Your task to perform on an android device: turn off smart reply in the gmail app Image 0: 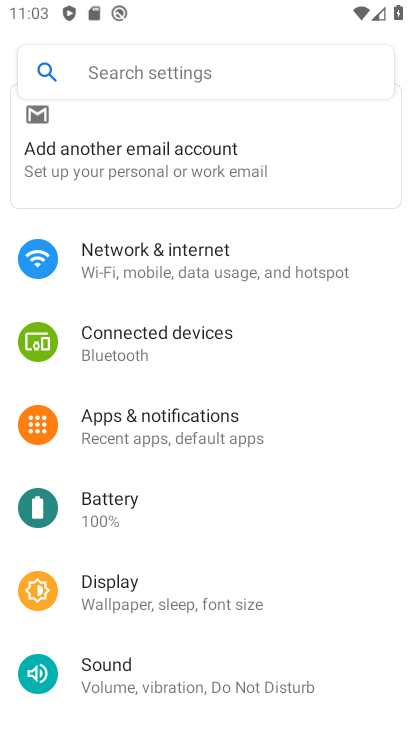
Step 0: press home button
Your task to perform on an android device: turn off smart reply in the gmail app Image 1: 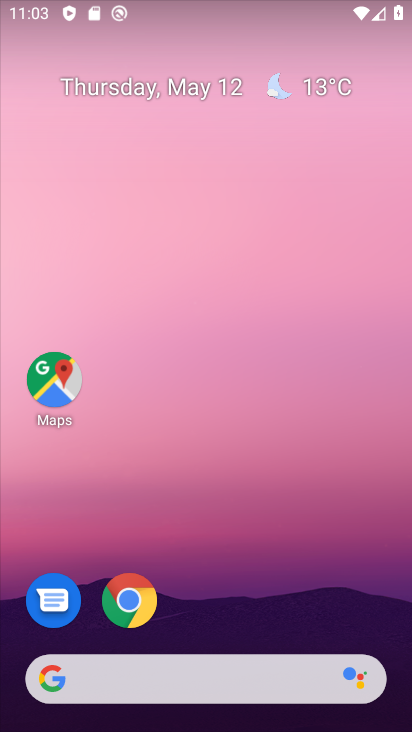
Step 1: drag from (385, 619) to (326, 82)
Your task to perform on an android device: turn off smart reply in the gmail app Image 2: 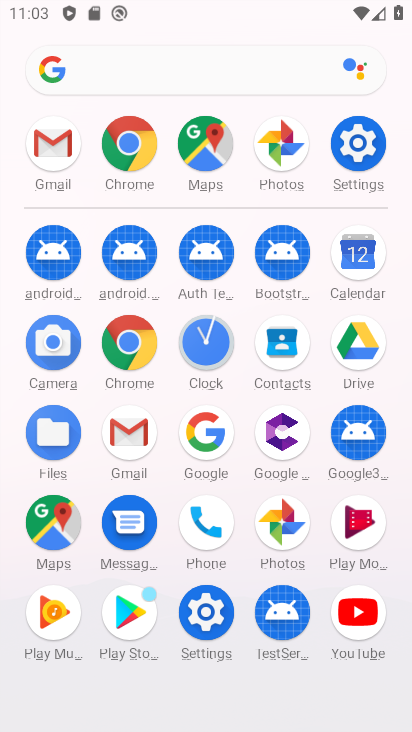
Step 2: click (127, 431)
Your task to perform on an android device: turn off smart reply in the gmail app Image 3: 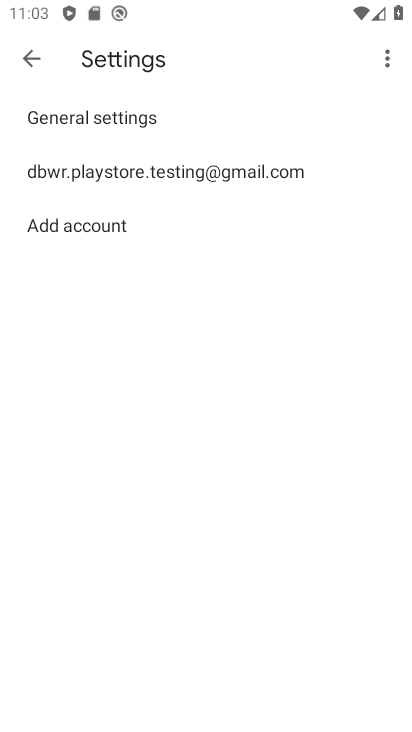
Step 3: click (138, 173)
Your task to perform on an android device: turn off smart reply in the gmail app Image 4: 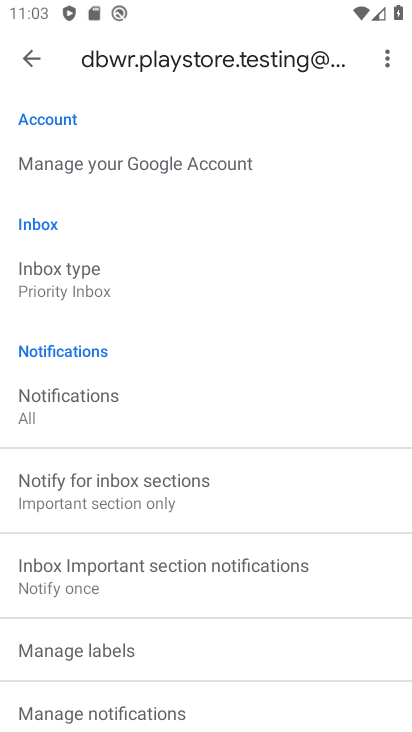
Step 4: drag from (320, 594) to (281, 184)
Your task to perform on an android device: turn off smart reply in the gmail app Image 5: 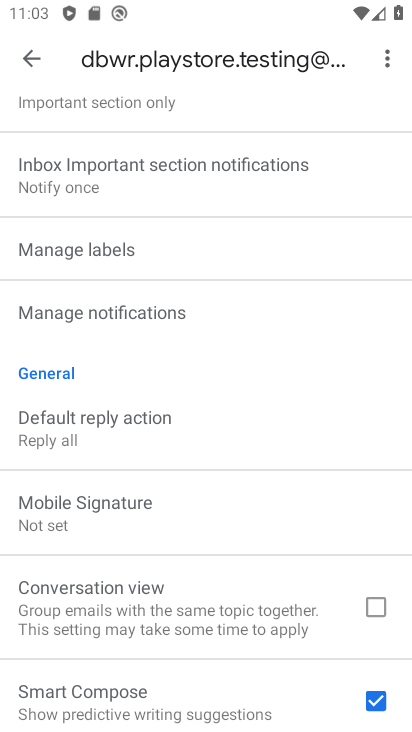
Step 5: drag from (318, 519) to (328, 178)
Your task to perform on an android device: turn off smart reply in the gmail app Image 6: 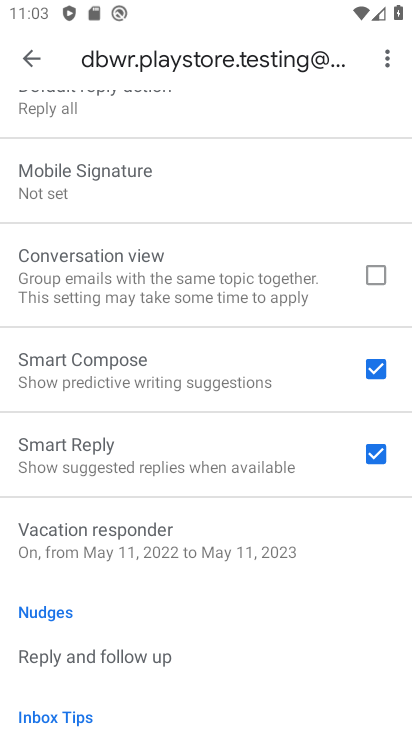
Step 6: click (380, 452)
Your task to perform on an android device: turn off smart reply in the gmail app Image 7: 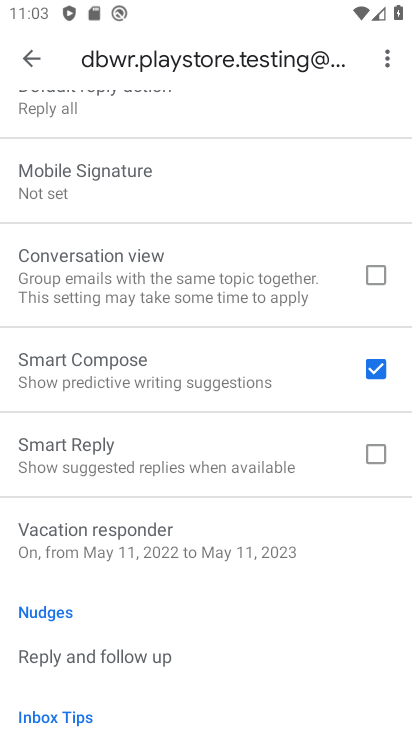
Step 7: task complete